Your task to perform on an android device: turn pop-ups on in chrome Image 0: 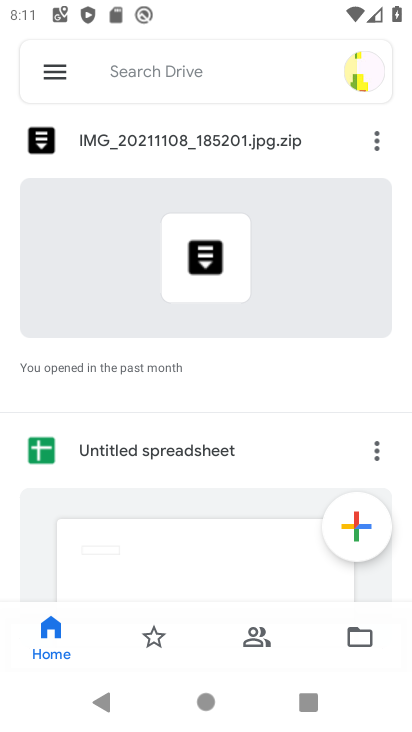
Step 0: press home button
Your task to perform on an android device: turn pop-ups on in chrome Image 1: 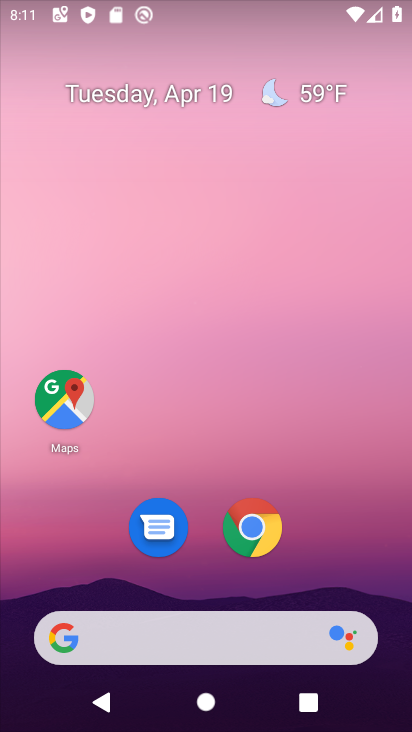
Step 1: click (233, 530)
Your task to perform on an android device: turn pop-ups on in chrome Image 2: 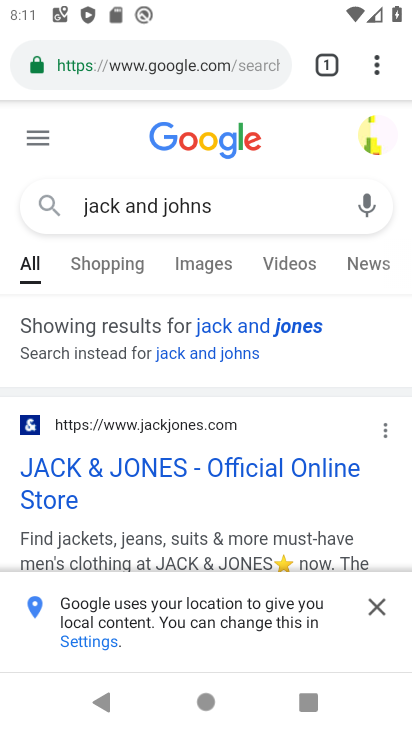
Step 2: drag from (372, 65) to (158, 576)
Your task to perform on an android device: turn pop-ups on in chrome Image 3: 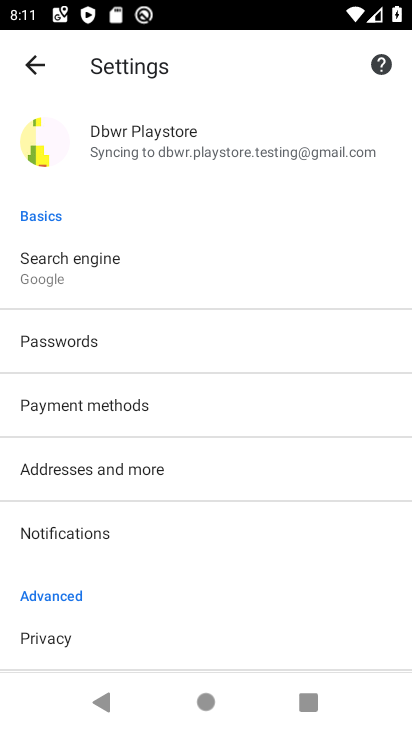
Step 3: drag from (204, 593) to (264, 203)
Your task to perform on an android device: turn pop-ups on in chrome Image 4: 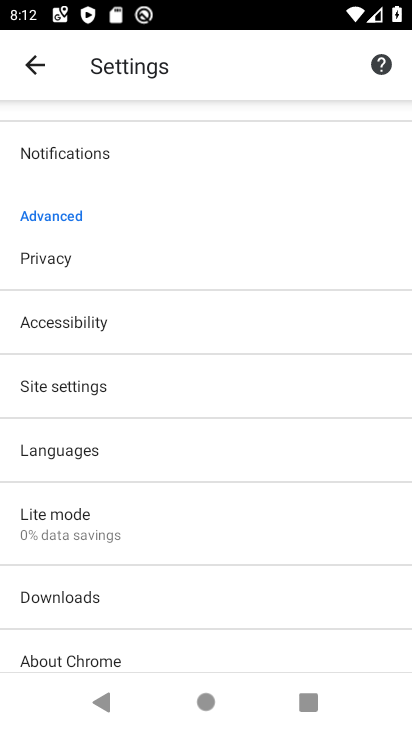
Step 4: click (148, 378)
Your task to perform on an android device: turn pop-ups on in chrome Image 5: 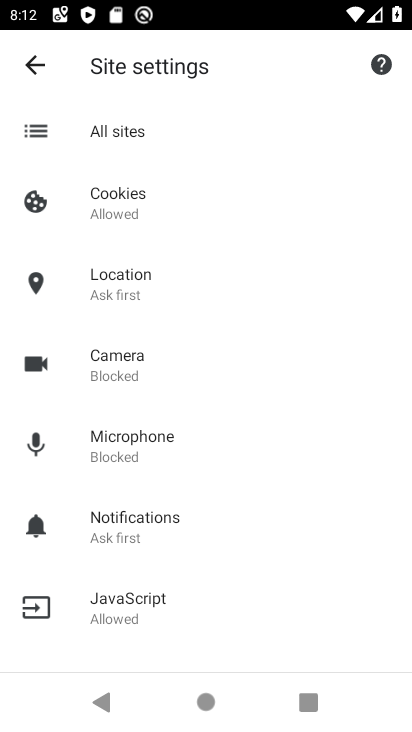
Step 5: drag from (203, 348) to (222, 245)
Your task to perform on an android device: turn pop-ups on in chrome Image 6: 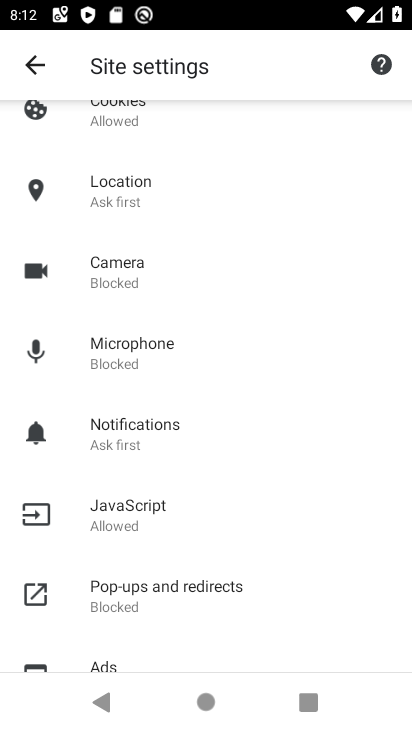
Step 6: click (188, 579)
Your task to perform on an android device: turn pop-ups on in chrome Image 7: 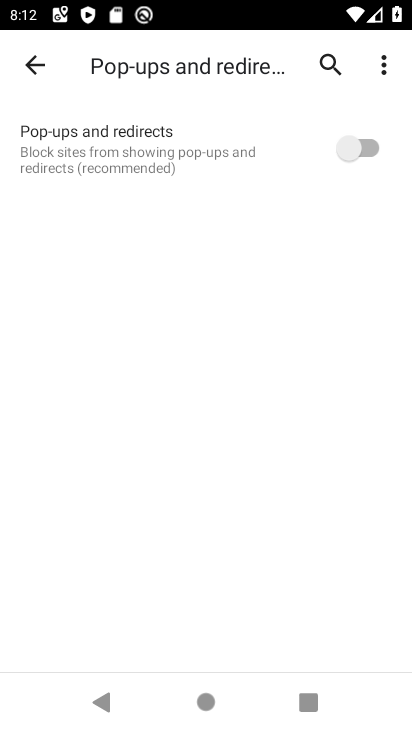
Step 7: click (371, 156)
Your task to perform on an android device: turn pop-ups on in chrome Image 8: 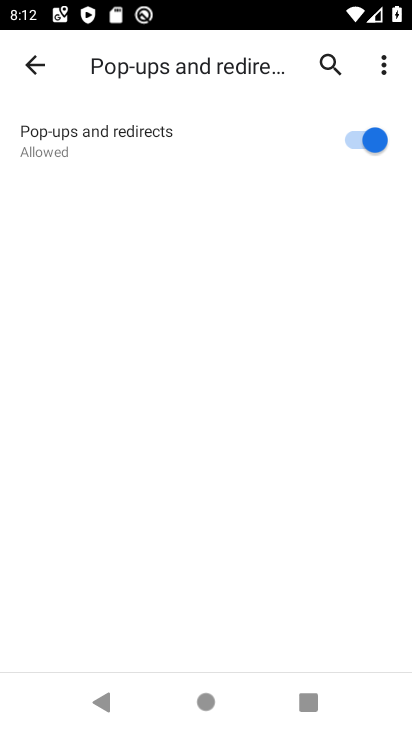
Step 8: task complete